Your task to perform on an android device: Open wifi settings Image 0: 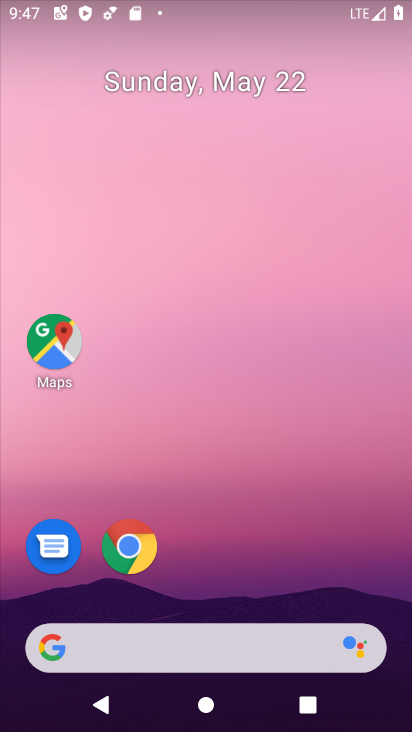
Step 0: click (252, 151)
Your task to perform on an android device: Open wifi settings Image 1: 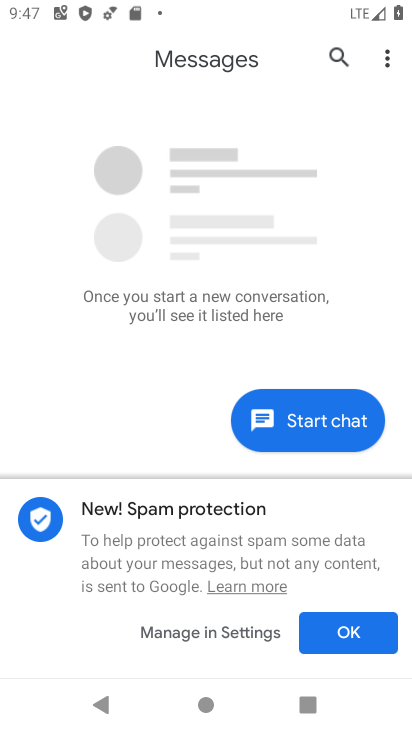
Step 1: press home button
Your task to perform on an android device: Open wifi settings Image 2: 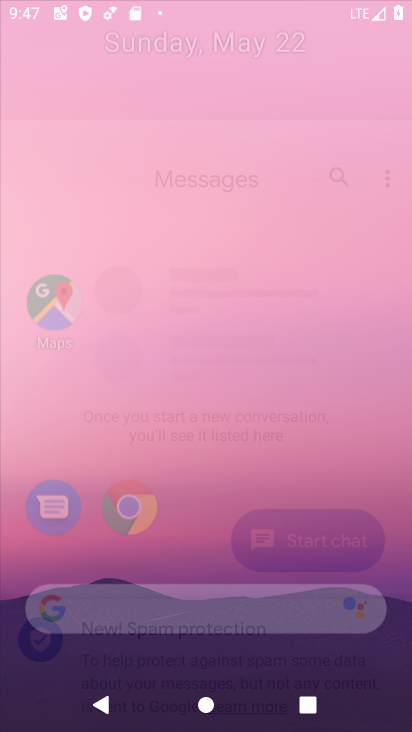
Step 2: drag from (192, 556) to (262, 49)
Your task to perform on an android device: Open wifi settings Image 3: 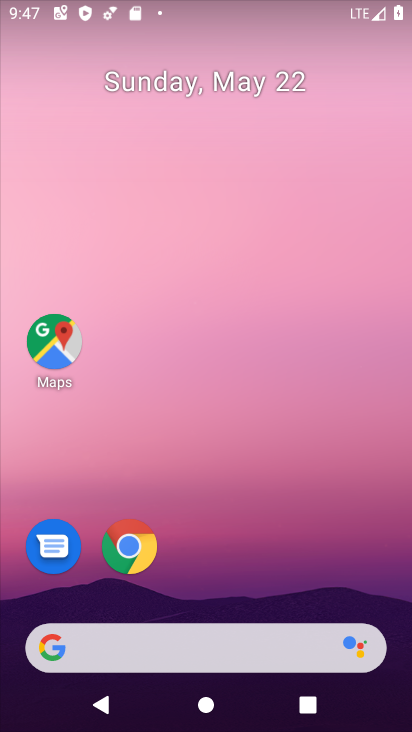
Step 3: drag from (193, 627) to (200, 42)
Your task to perform on an android device: Open wifi settings Image 4: 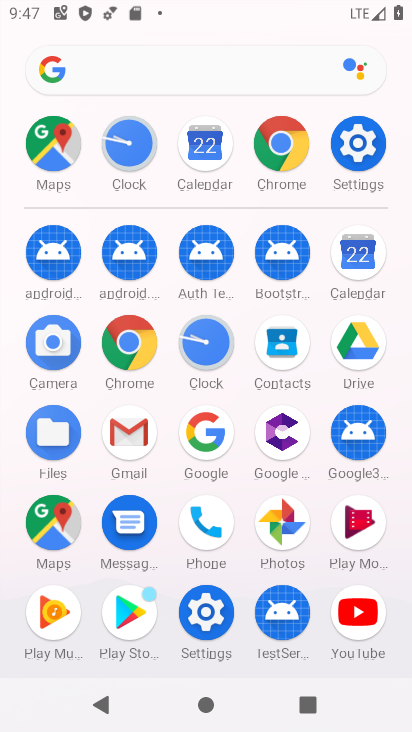
Step 4: click (357, 141)
Your task to perform on an android device: Open wifi settings Image 5: 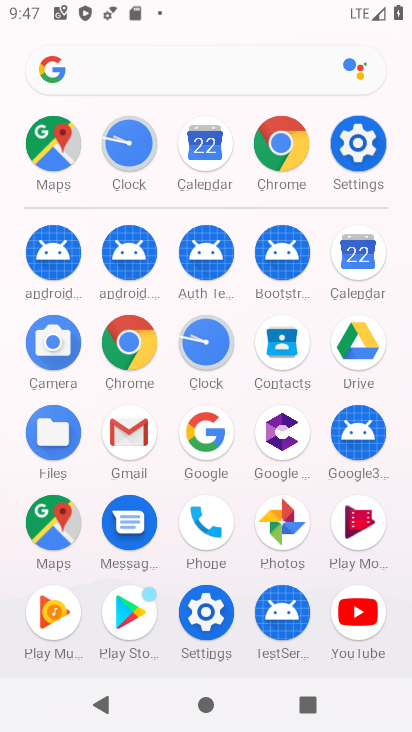
Step 5: click (357, 141)
Your task to perform on an android device: Open wifi settings Image 6: 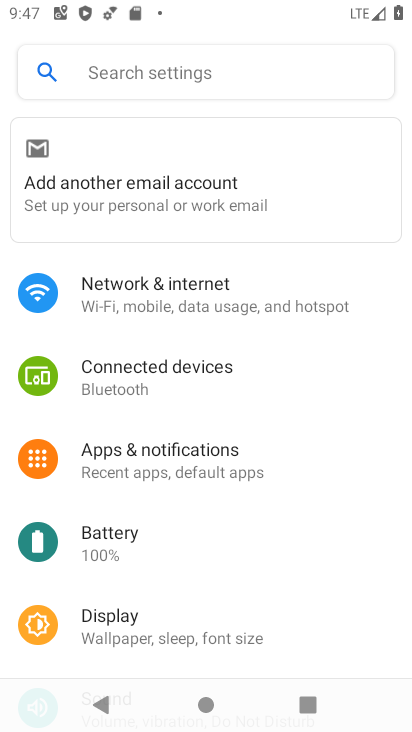
Step 6: click (169, 292)
Your task to perform on an android device: Open wifi settings Image 7: 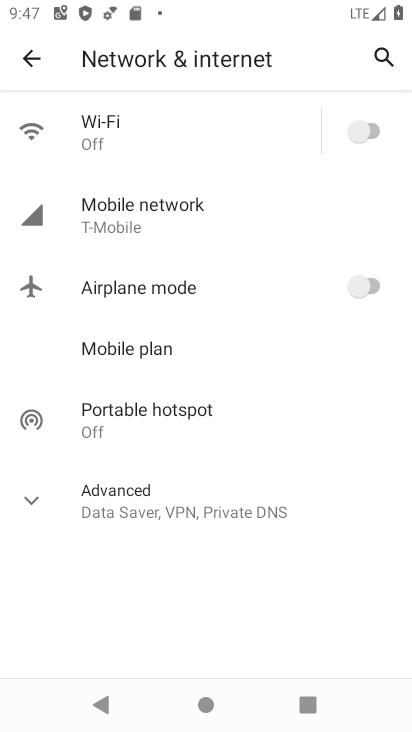
Step 7: click (235, 110)
Your task to perform on an android device: Open wifi settings Image 8: 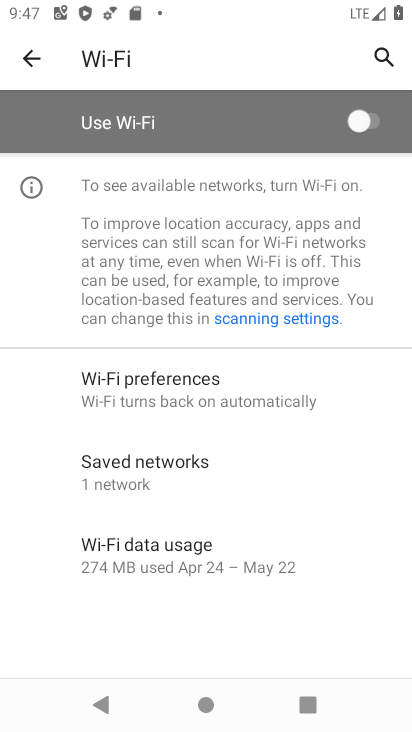
Step 8: task complete